Your task to perform on an android device: Open the web browser Image 0: 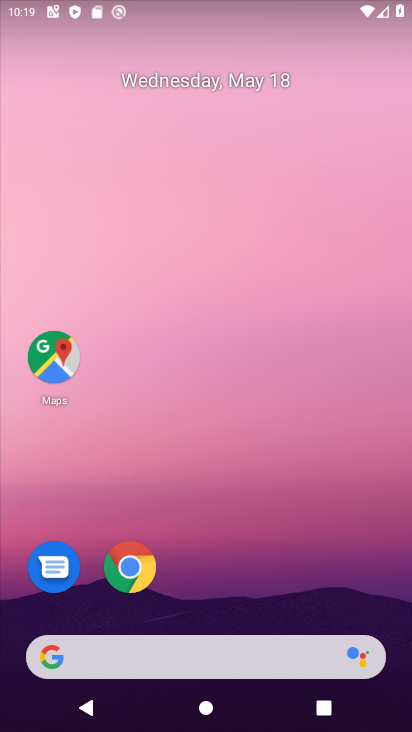
Step 0: drag from (265, 690) to (321, 168)
Your task to perform on an android device: Open the web browser Image 1: 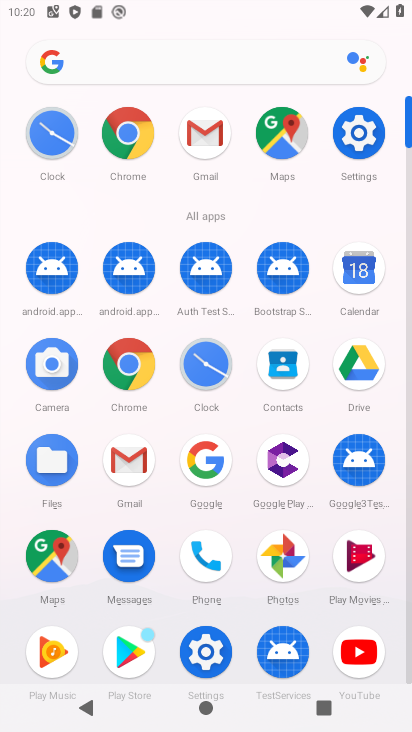
Step 1: click (110, 137)
Your task to perform on an android device: Open the web browser Image 2: 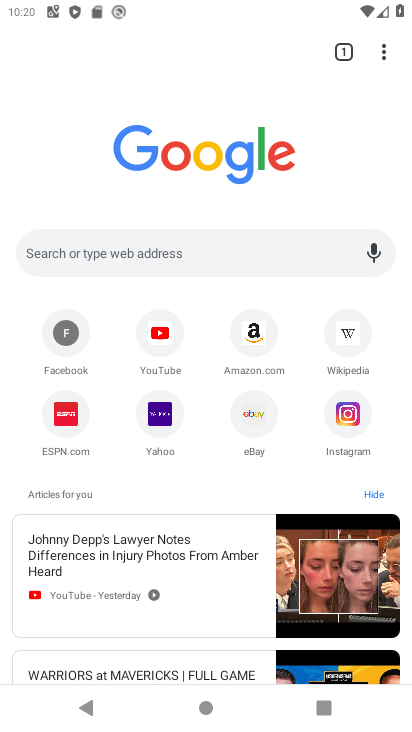
Step 2: click (194, 250)
Your task to perform on an android device: Open the web browser Image 3: 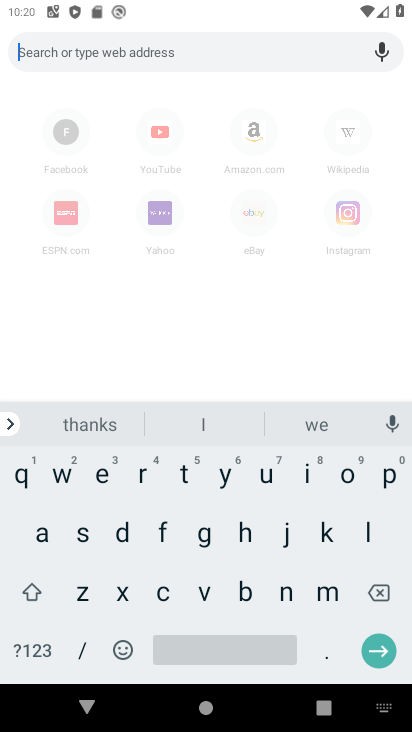
Step 3: task complete